Your task to perform on an android device: search for starred emails in the gmail app Image 0: 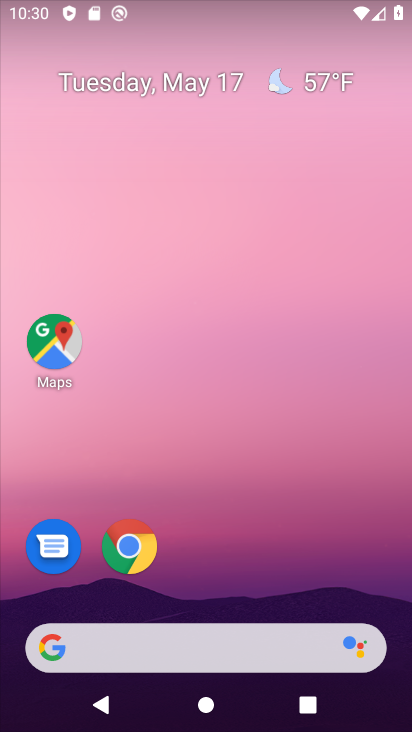
Step 0: drag from (303, 548) to (313, 95)
Your task to perform on an android device: search for starred emails in the gmail app Image 1: 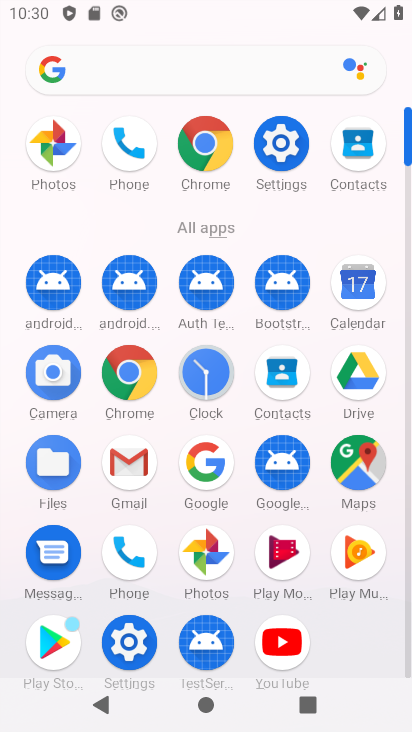
Step 1: click (128, 478)
Your task to perform on an android device: search for starred emails in the gmail app Image 2: 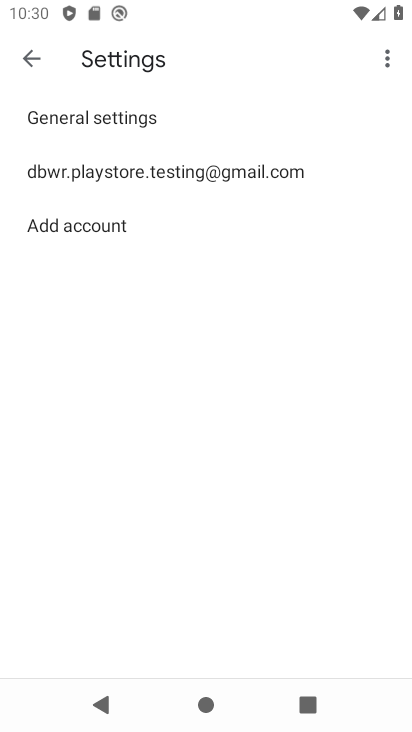
Step 2: click (128, 177)
Your task to perform on an android device: search for starred emails in the gmail app Image 3: 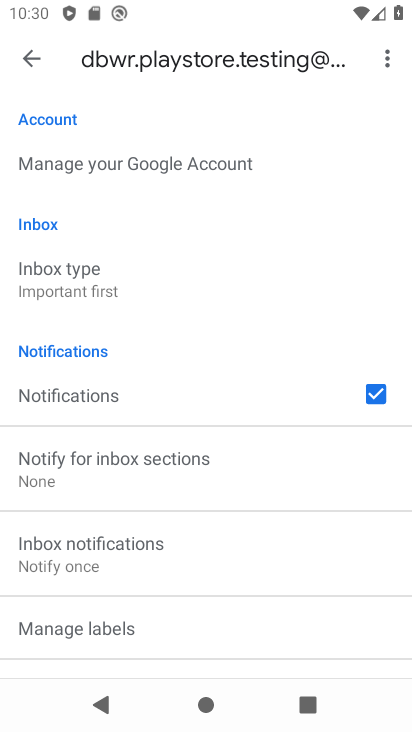
Step 3: press back button
Your task to perform on an android device: search for starred emails in the gmail app Image 4: 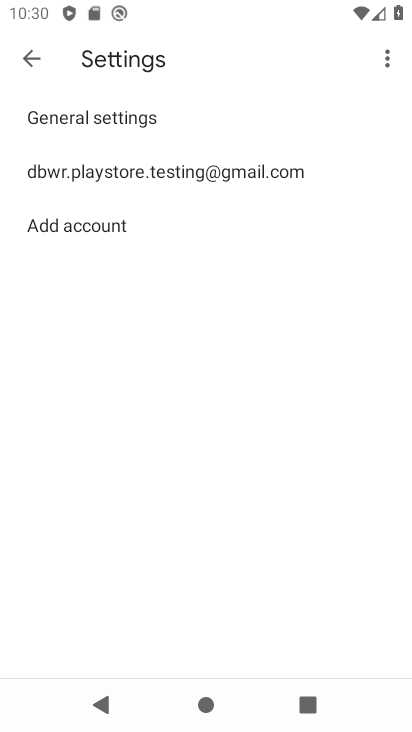
Step 4: press back button
Your task to perform on an android device: search for starred emails in the gmail app Image 5: 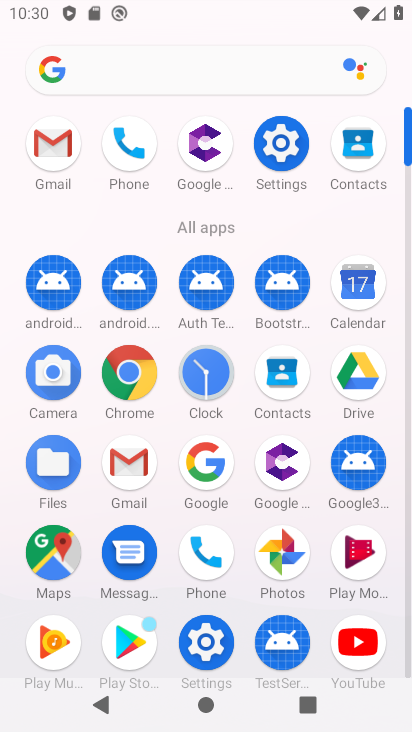
Step 5: click (30, 129)
Your task to perform on an android device: search for starred emails in the gmail app Image 6: 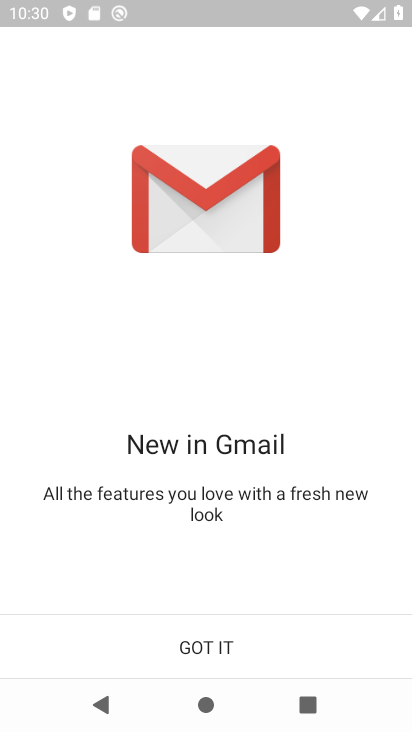
Step 6: click (199, 663)
Your task to perform on an android device: search for starred emails in the gmail app Image 7: 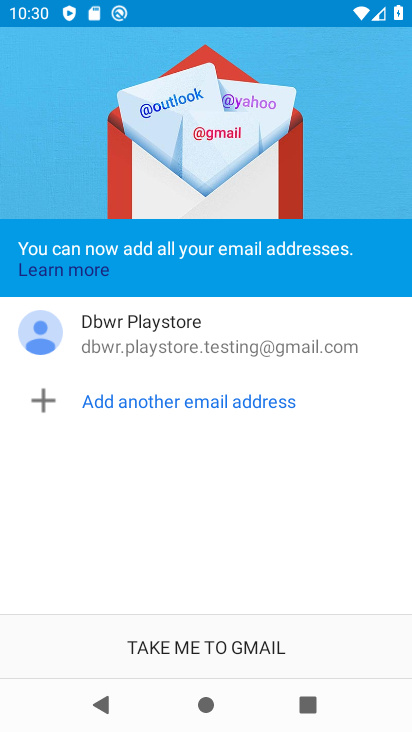
Step 7: click (207, 654)
Your task to perform on an android device: search for starred emails in the gmail app Image 8: 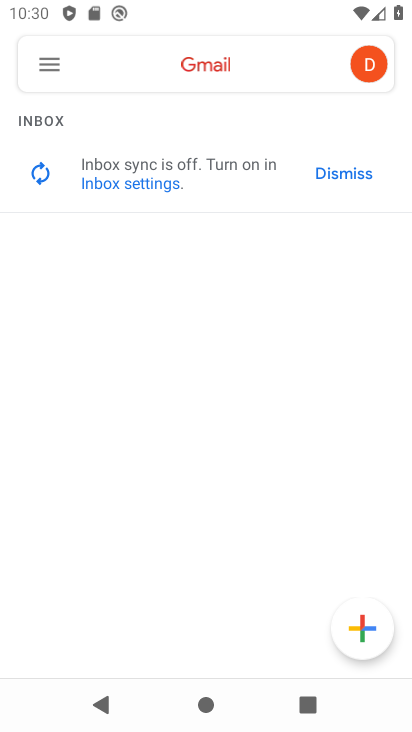
Step 8: click (42, 67)
Your task to perform on an android device: search for starred emails in the gmail app Image 9: 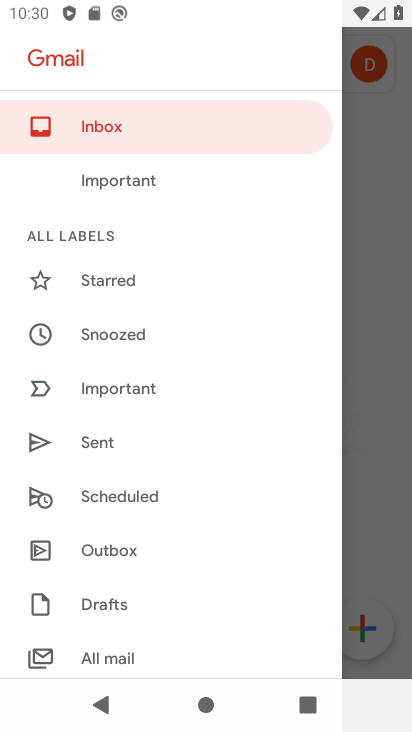
Step 9: click (101, 285)
Your task to perform on an android device: search for starred emails in the gmail app Image 10: 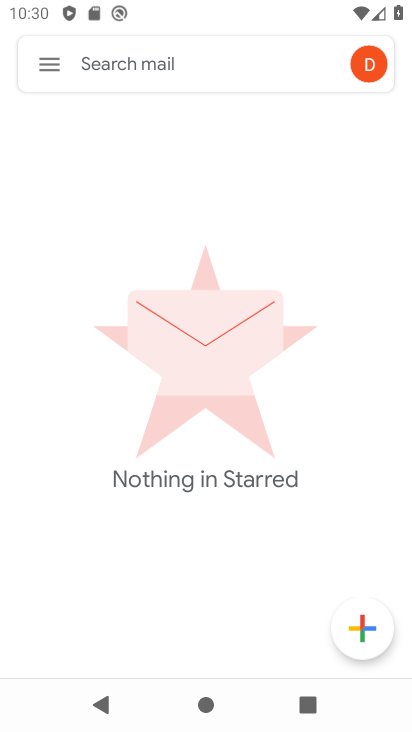
Step 10: task complete